Your task to perform on an android device: empty trash in google photos Image 0: 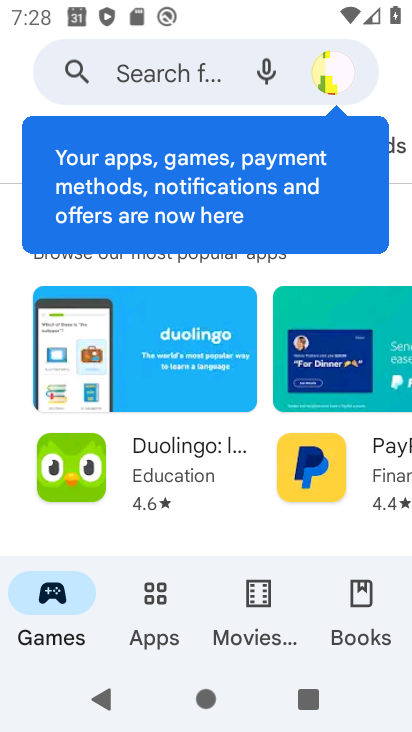
Step 0: press home button
Your task to perform on an android device: empty trash in google photos Image 1: 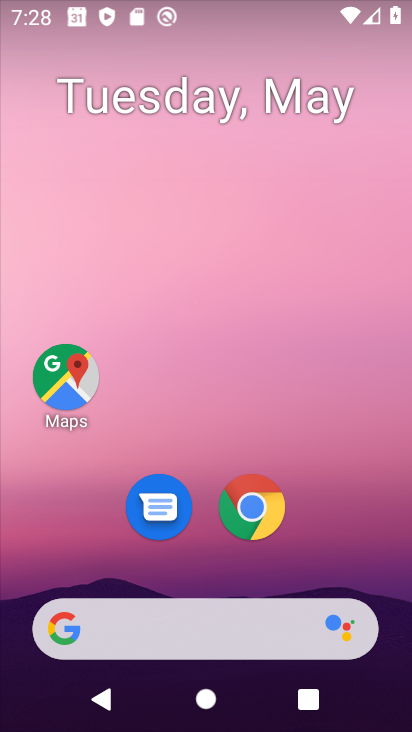
Step 1: drag from (218, 565) to (246, 79)
Your task to perform on an android device: empty trash in google photos Image 2: 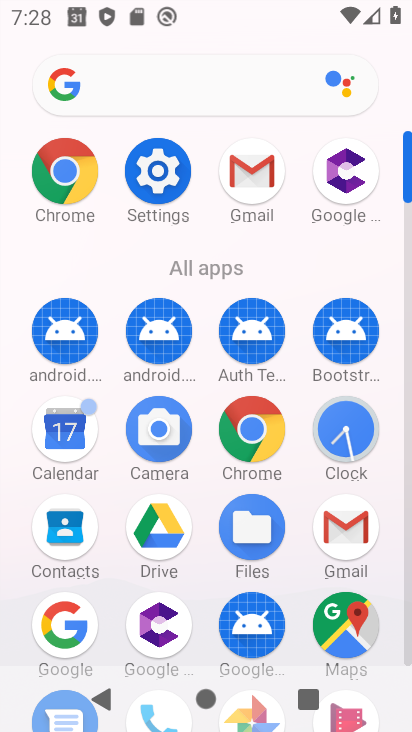
Step 2: drag from (280, 586) to (278, 286)
Your task to perform on an android device: empty trash in google photos Image 3: 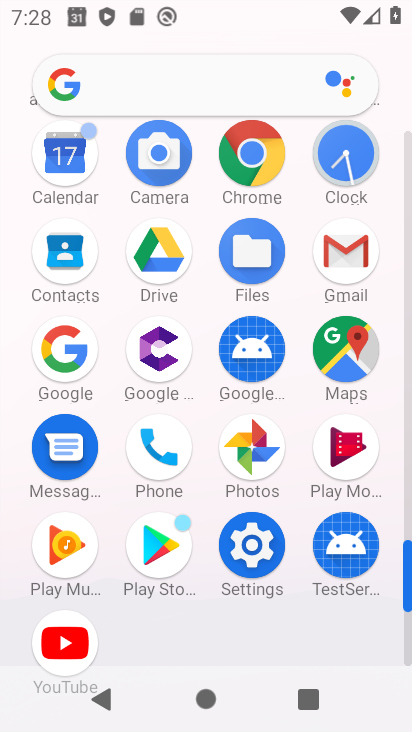
Step 3: click (265, 441)
Your task to perform on an android device: empty trash in google photos Image 4: 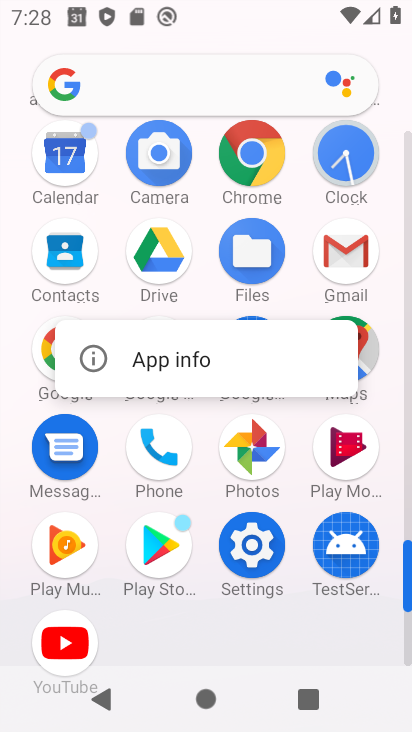
Step 4: click (265, 441)
Your task to perform on an android device: empty trash in google photos Image 5: 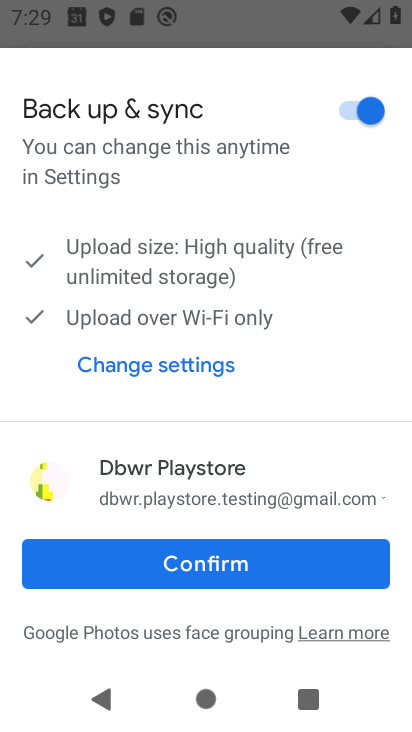
Step 5: click (254, 563)
Your task to perform on an android device: empty trash in google photos Image 6: 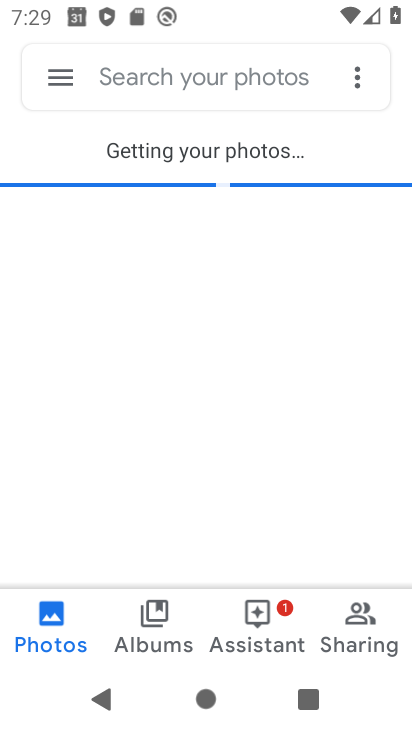
Step 6: click (62, 76)
Your task to perform on an android device: empty trash in google photos Image 7: 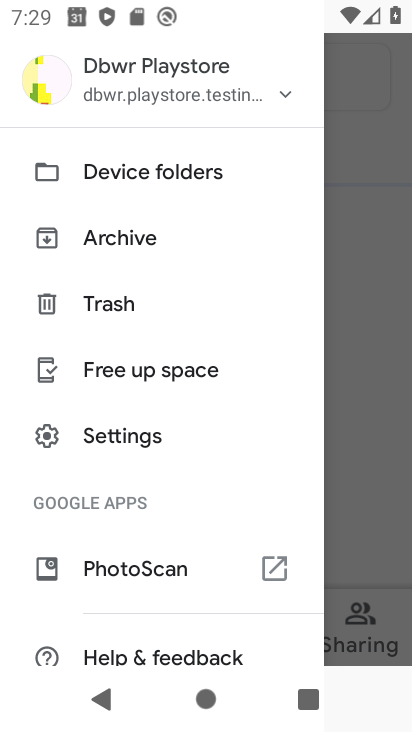
Step 7: click (171, 309)
Your task to perform on an android device: empty trash in google photos Image 8: 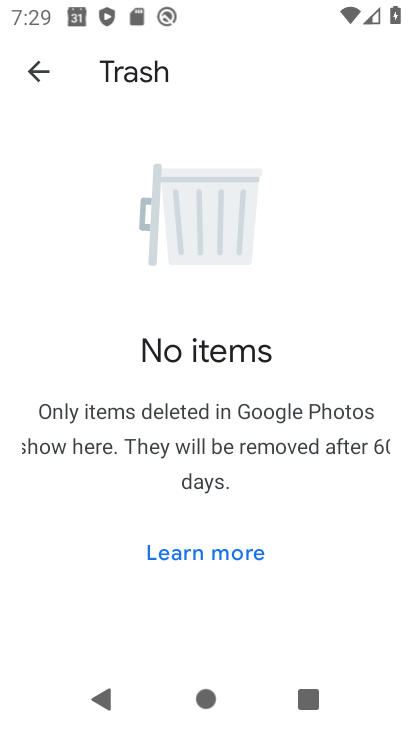
Step 8: task complete